Your task to perform on an android device: Search for the new ikea dresser Image 0: 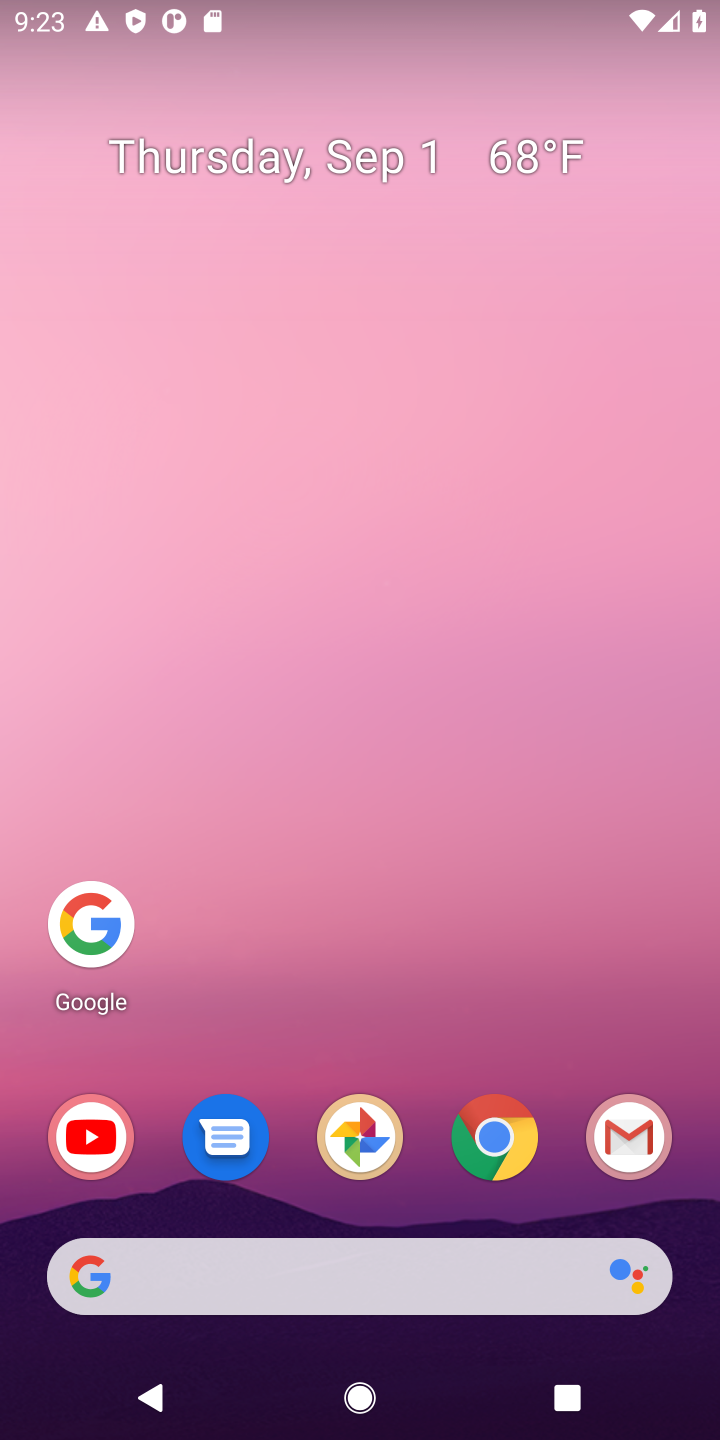
Step 0: click (403, 1264)
Your task to perform on an android device: Search for the new ikea dresser Image 1: 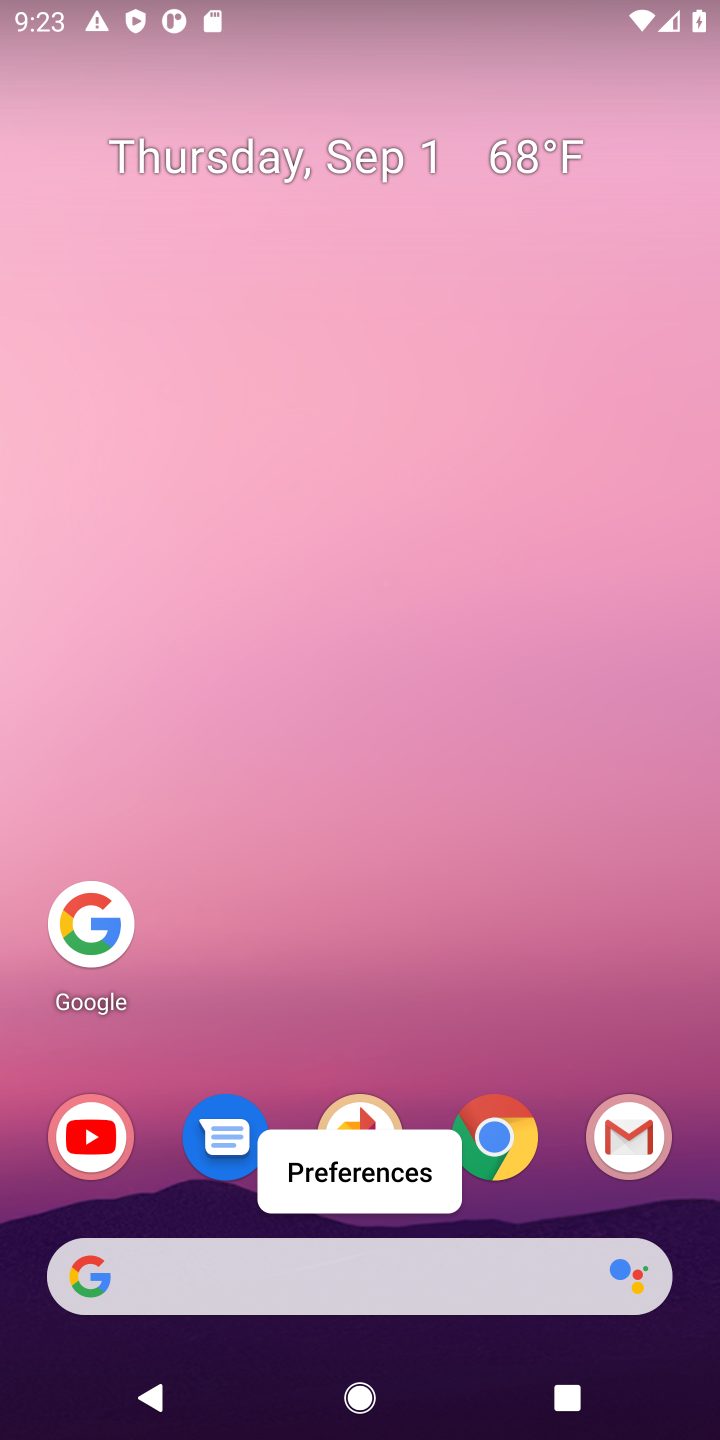
Step 1: click (90, 917)
Your task to perform on an android device: Search for the new ikea dresser Image 2: 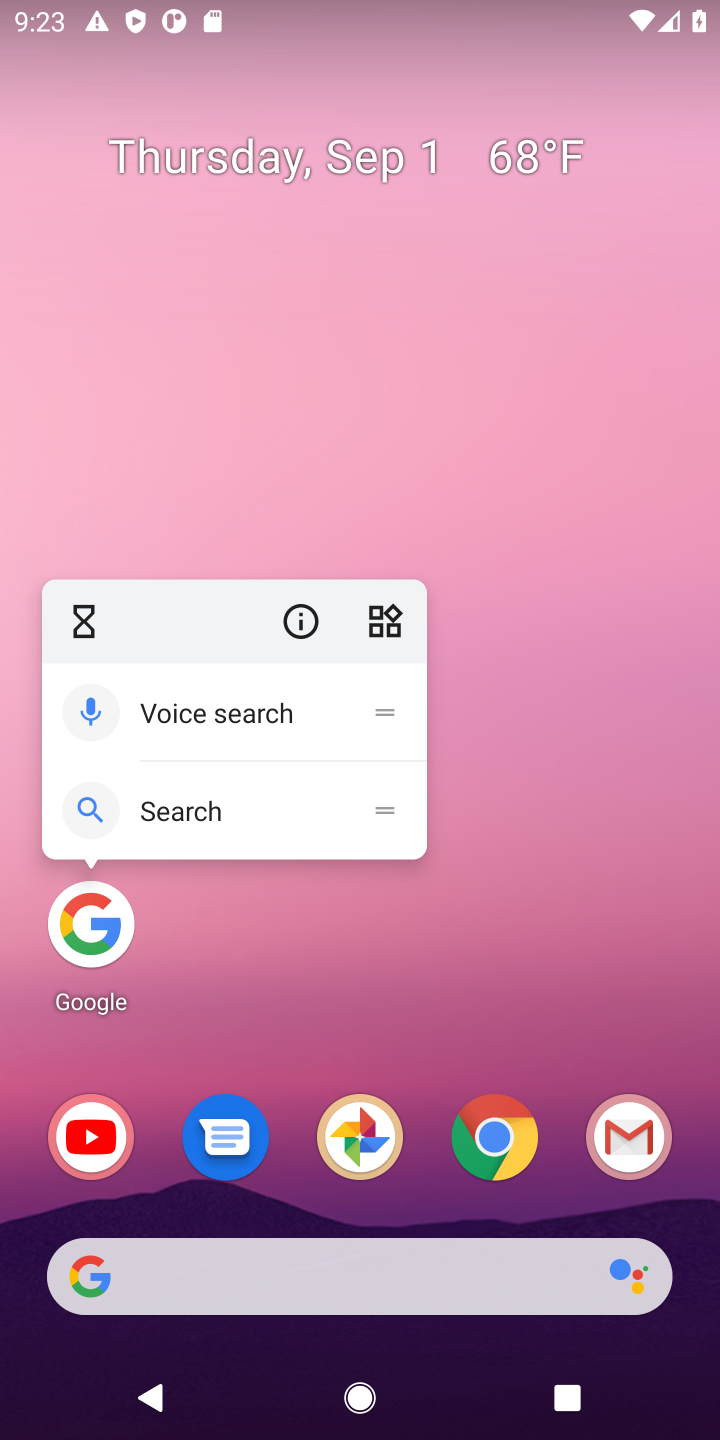
Step 2: click (75, 917)
Your task to perform on an android device: Search for the new ikea dresser Image 3: 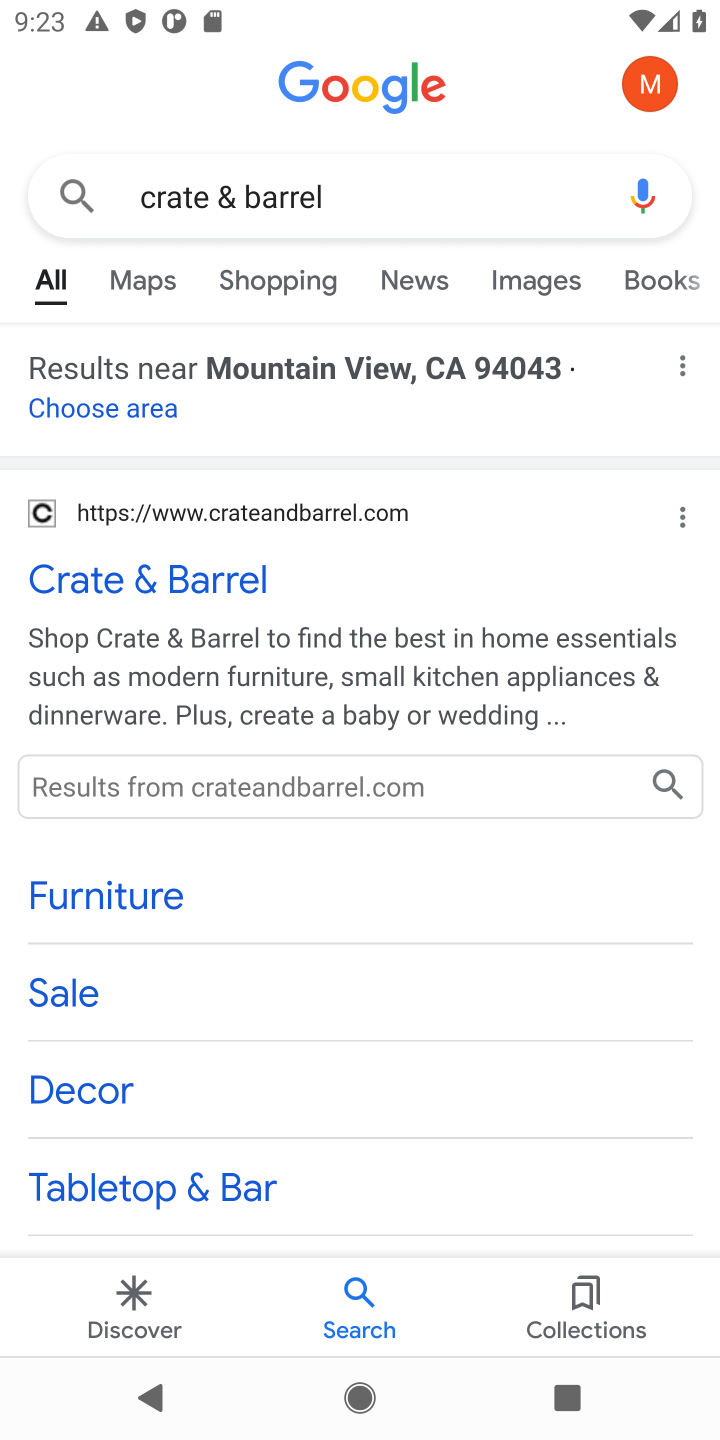
Step 3: click (372, 196)
Your task to perform on an android device: Search for the new ikea dresser Image 4: 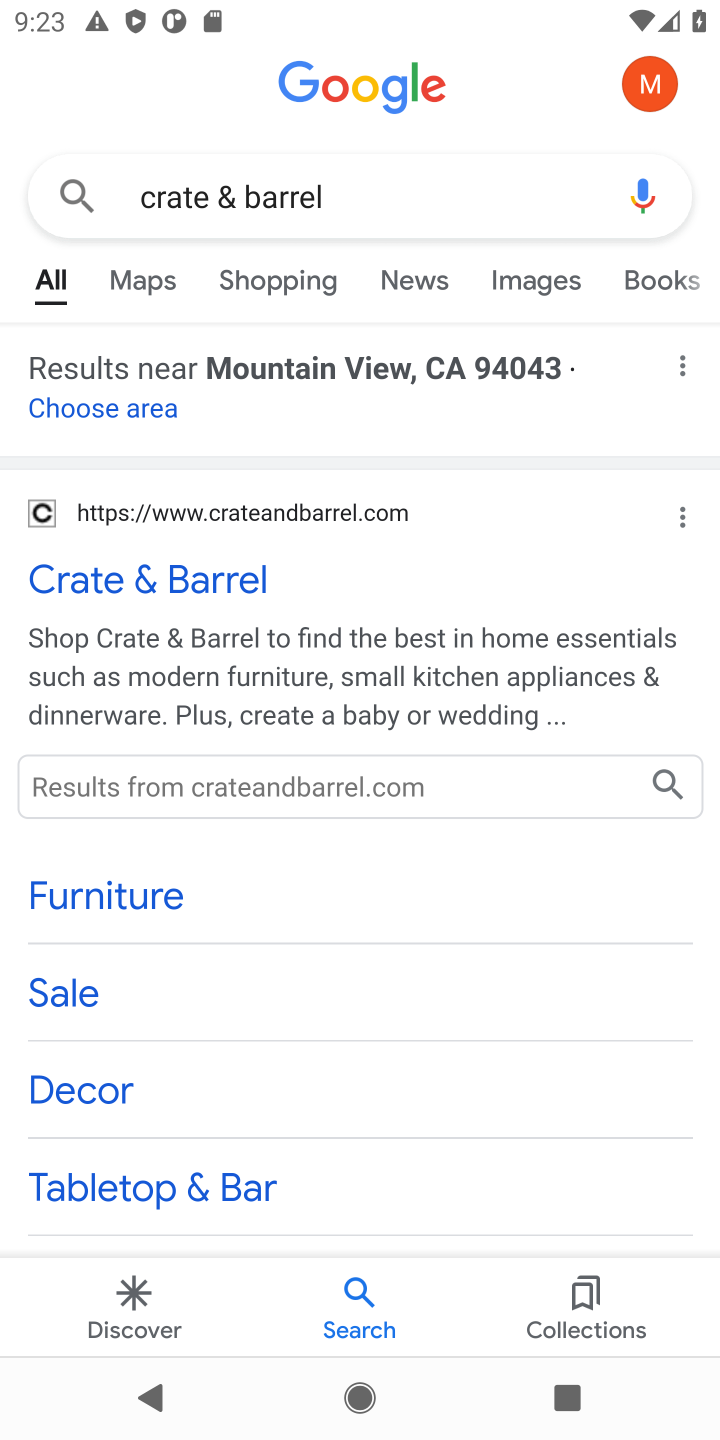
Step 4: click (372, 196)
Your task to perform on an android device: Search for the new ikea dresser Image 5: 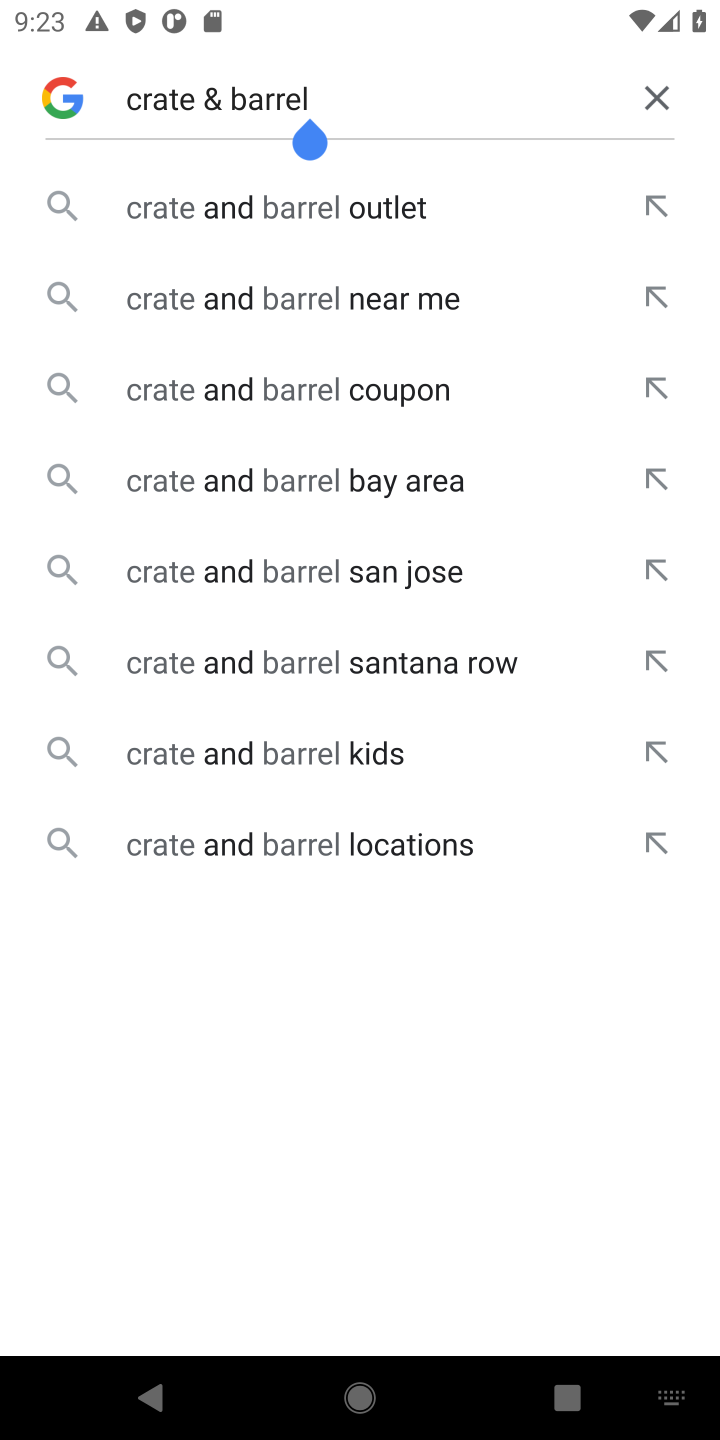
Step 5: click (653, 88)
Your task to perform on an android device: Search for the new ikea dresser Image 6: 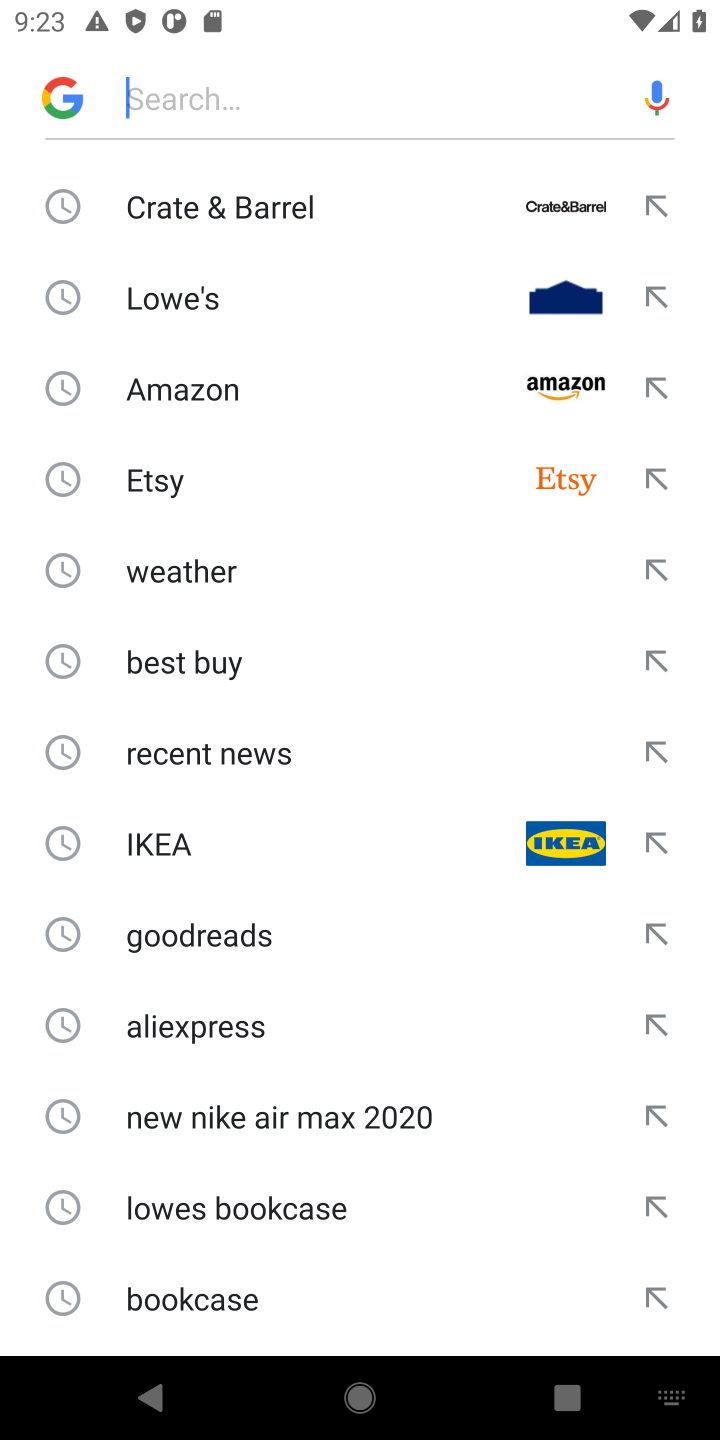
Step 6: type "the new ikea dresser"
Your task to perform on an android device: Search for the new ikea dresser Image 7: 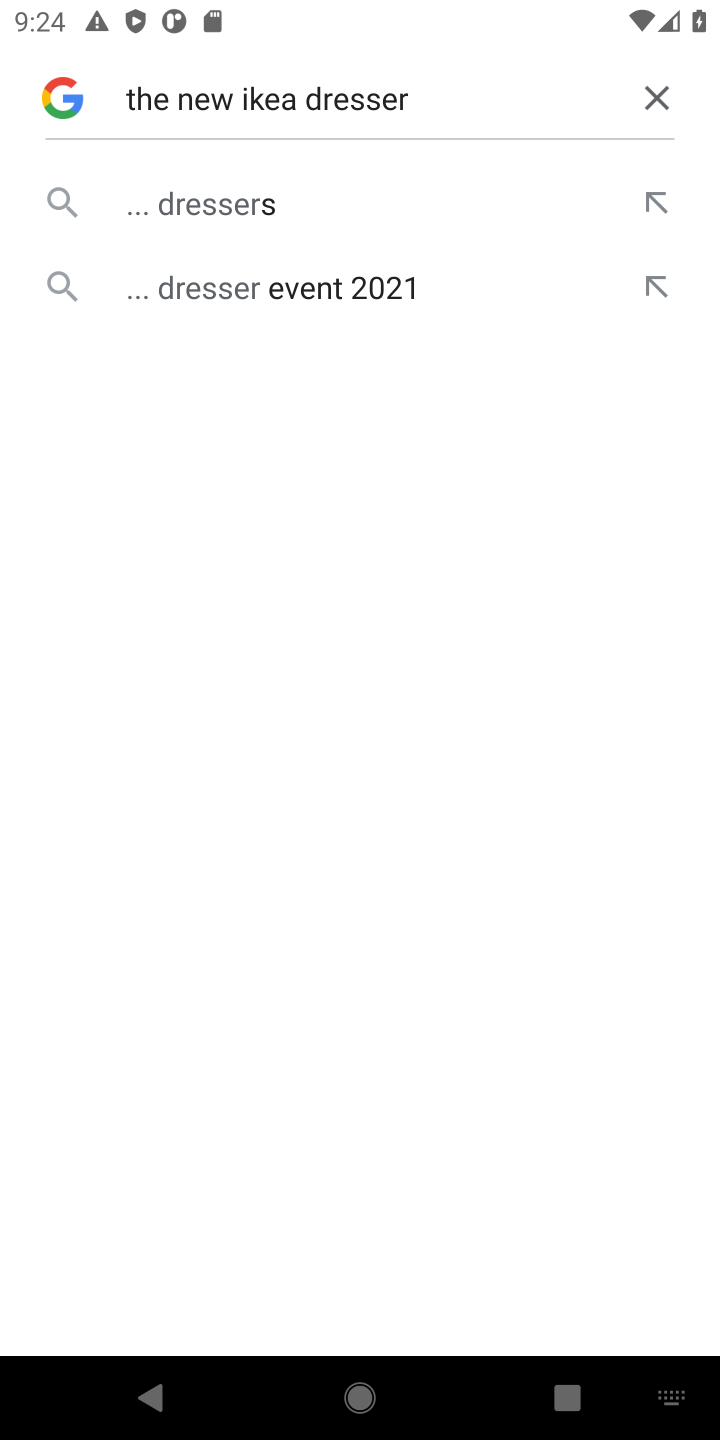
Step 7: click (244, 198)
Your task to perform on an android device: Search for the new ikea dresser Image 8: 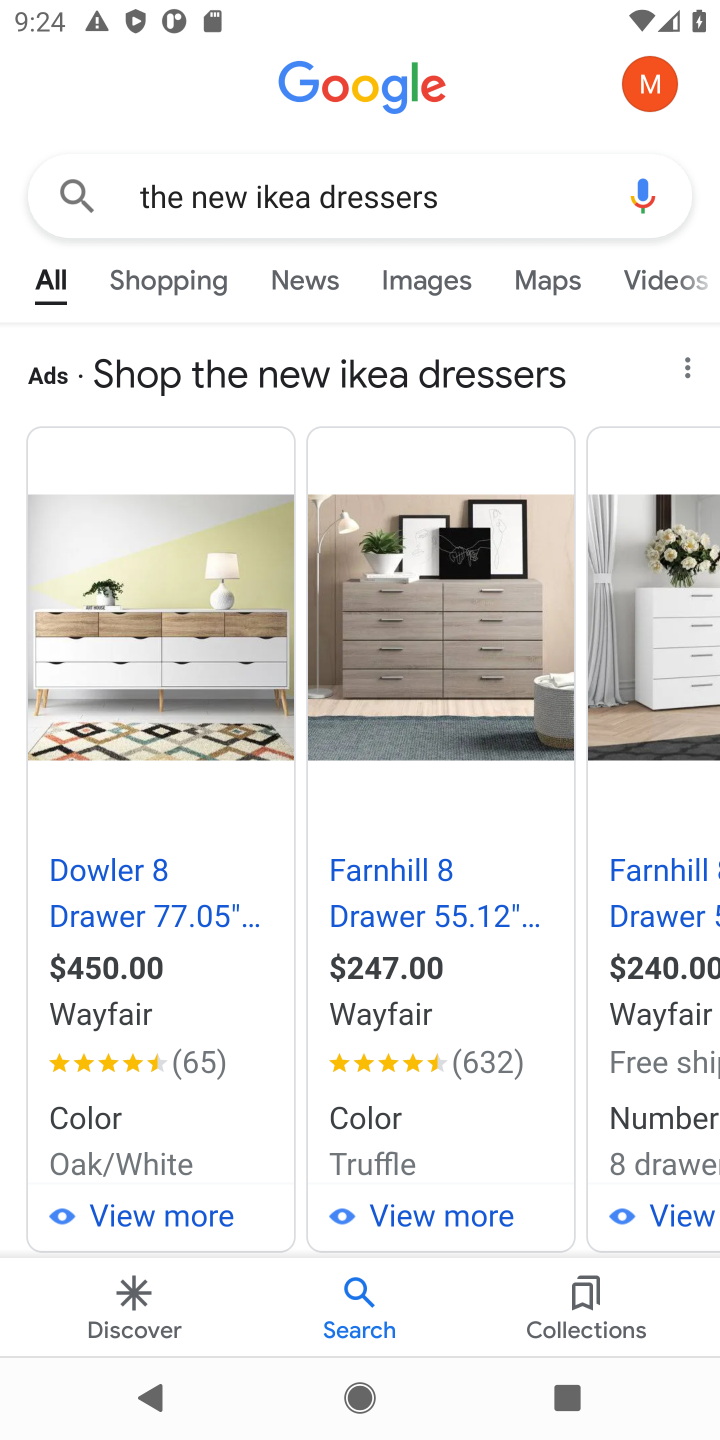
Step 8: task complete